Your task to perform on an android device: Search for flights from Sydney to Helsinki Image 0: 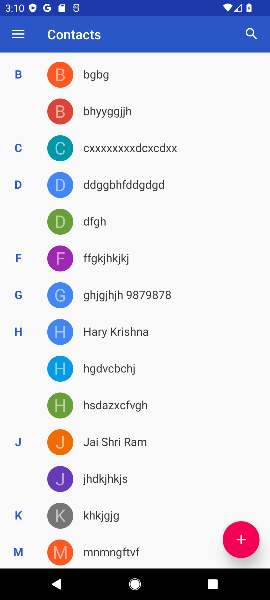
Step 0: press home button
Your task to perform on an android device: Search for flights from Sydney to Helsinki Image 1: 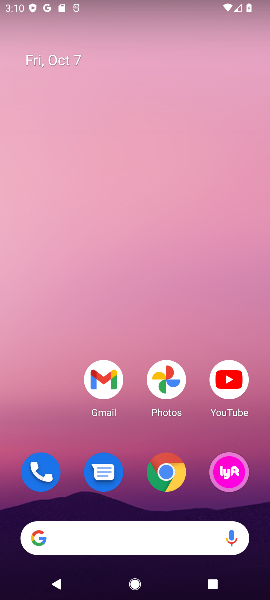
Step 1: click (164, 471)
Your task to perform on an android device: Search for flights from Sydney to Helsinki Image 2: 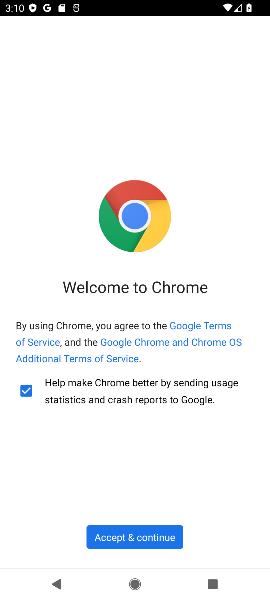
Step 2: click (129, 536)
Your task to perform on an android device: Search for flights from Sydney to Helsinki Image 3: 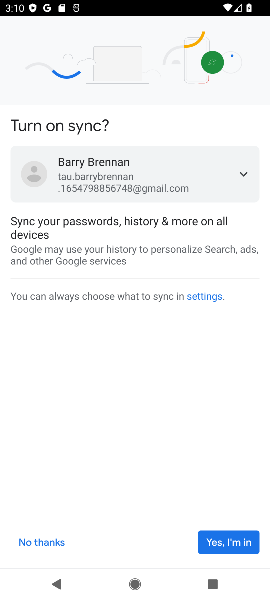
Step 3: click (224, 536)
Your task to perform on an android device: Search for flights from Sydney to Helsinki Image 4: 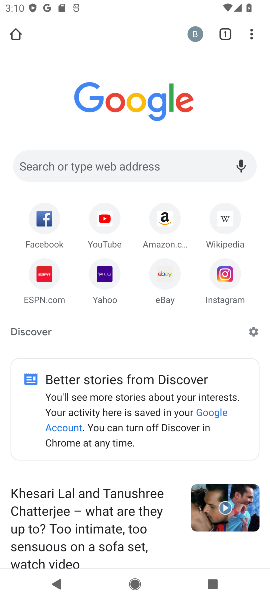
Step 4: click (160, 163)
Your task to perform on an android device: Search for flights from Sydney to Helsinki Image 5: 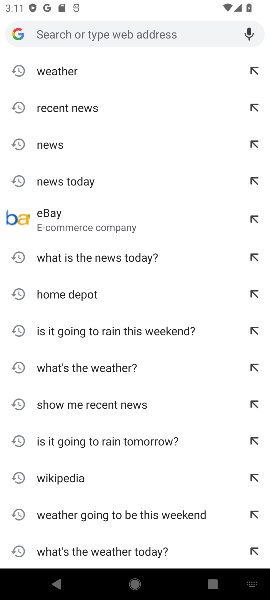
Step 5: type "flight from Sydney to Helsinki"
Your task to perform on an android device: Search for flights from Sydney to Helsinki Image 6: 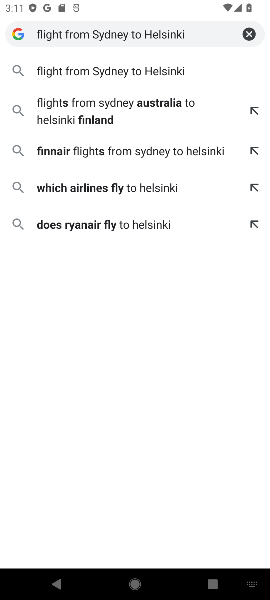
Step 6: click (156, 75)
Your task to perform on an android device: Search for flights from Sydney to Helsinki Image 7: 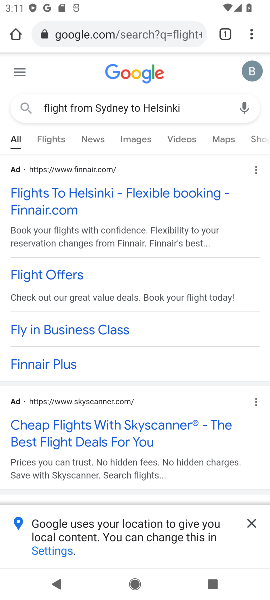
Step 7: drag from (139, 398) to (153, 257)
Your task to perform on an android device: Search for flights from Sydney to Helsinki Image 8: 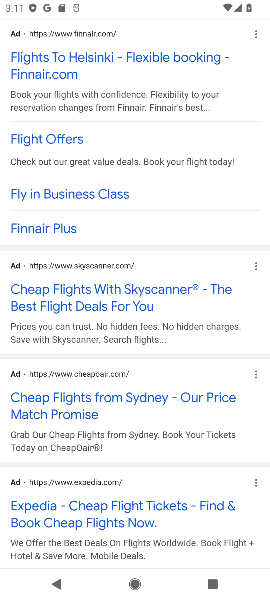
Step 8: drag from (157, 247) to (154, 376)
Your task to perform on an android device: Search for flights from Sydney to Helsinki Image 9: 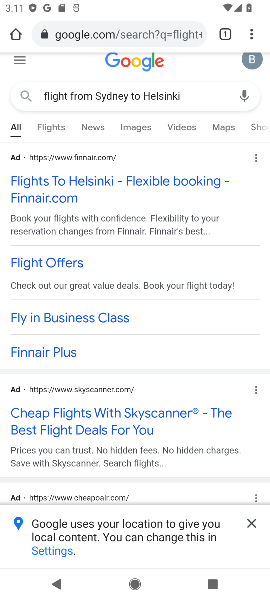
Step 9: click (138, 185)
Your task to perform on an android device: Search for flights from Sydney to Helsinki Image 10: 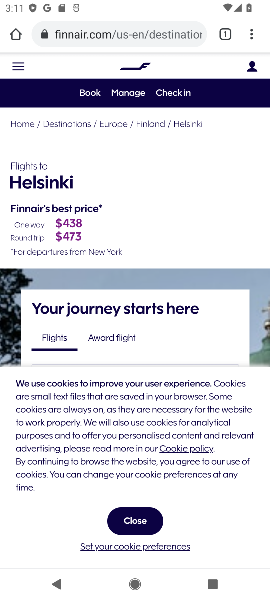
Step 10: click (142, 521)
Your task to perform on an android device: Search for flights from Sydney to Helsinki Image 11: 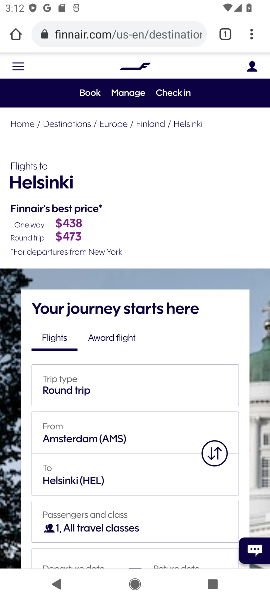
Step 11: task complete